Your task to perform on an android device: turn off translation in the chrome app Image 0: 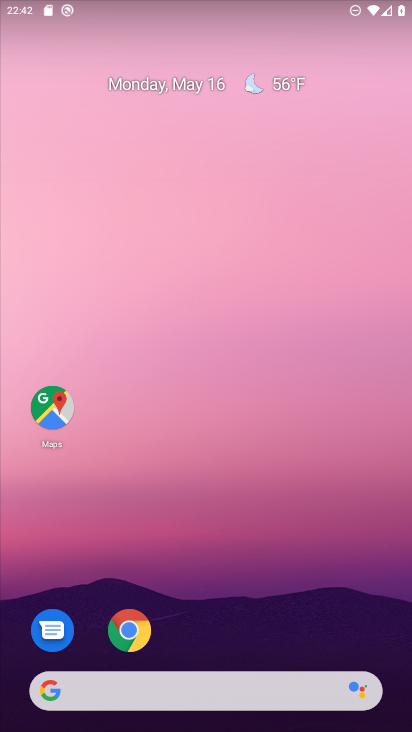
Step 0: drag from (256, 611) to (300, 78)
Your task to perform on an android device: turn off translation in the chrome app Image 1: 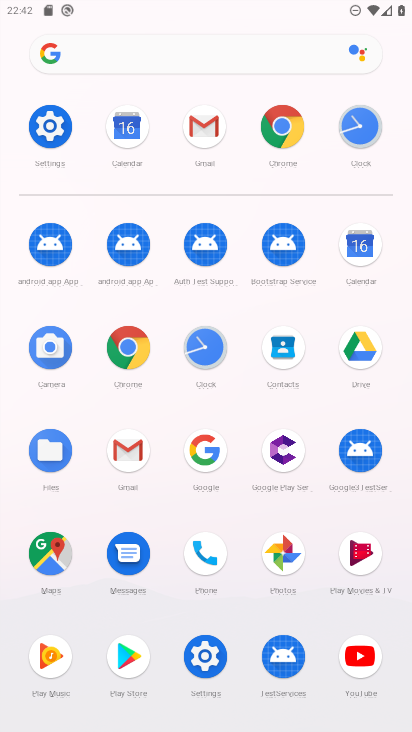
Step 1: click (135, 355)
Your task to perform on an android device: turn off translation in the chrome app Image 2: 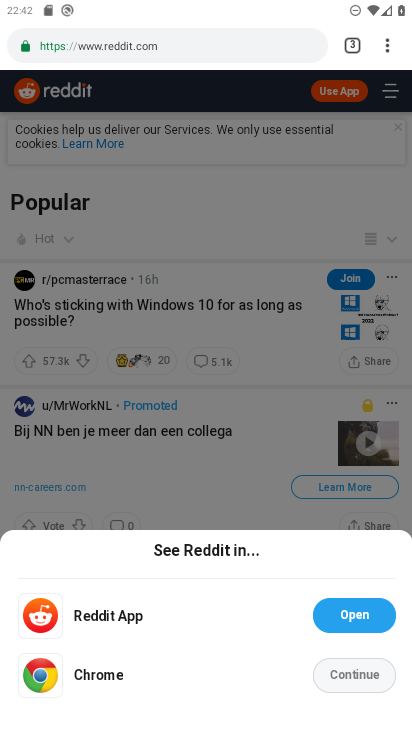
Step 2: click (392, 45)
Your task to perform on an android device: turn off translation in the chrome app Image 3: 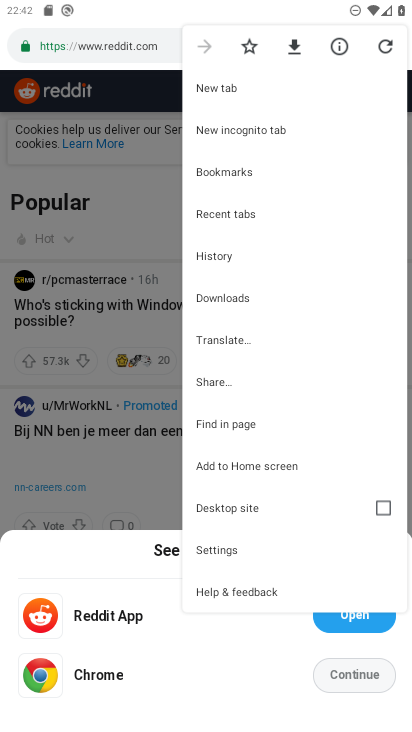
Step 3: click (225, 549)
Your task to perform on an android device: turn off translation in the chrome app Image 4: 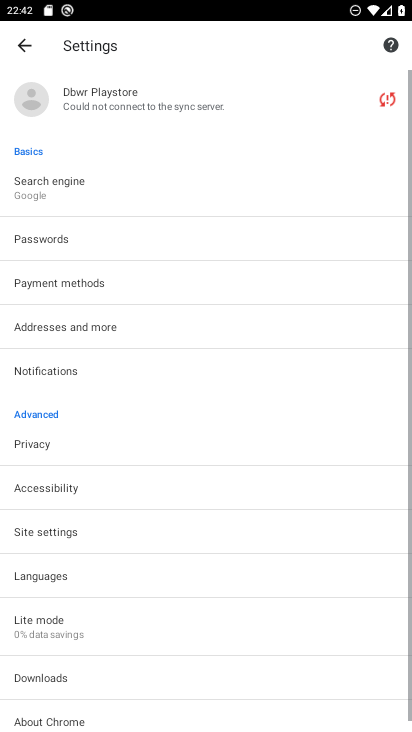
Step 4: drag from (171, 556) to (171, 388)
Your task to perform on an android device: turn off translation in the chrome app Image 5: 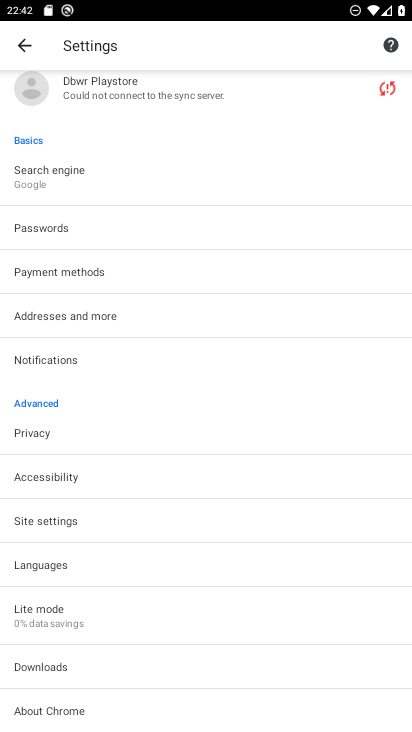
Step 5: click (62, 560)
Your task to perform on an android device: turn off translation in the chrome app Image 6: 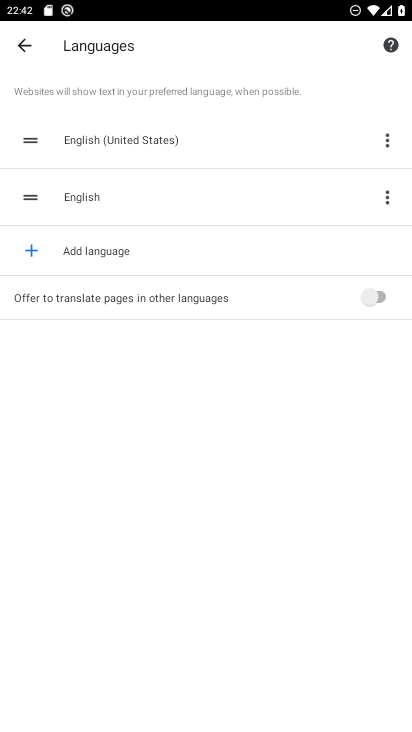
Step 6: task complete